Your task to perform on an android device: Find coffee shops on Maps Image 0: 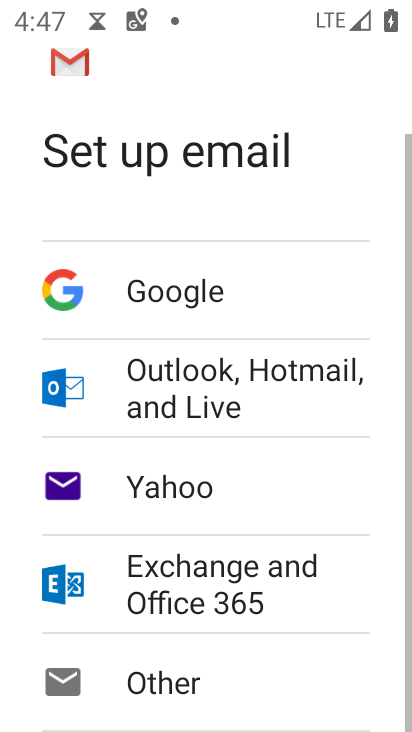
Step 0: press home button
Your task to perform on an android device: Find coffee shops on Maps Image 1: 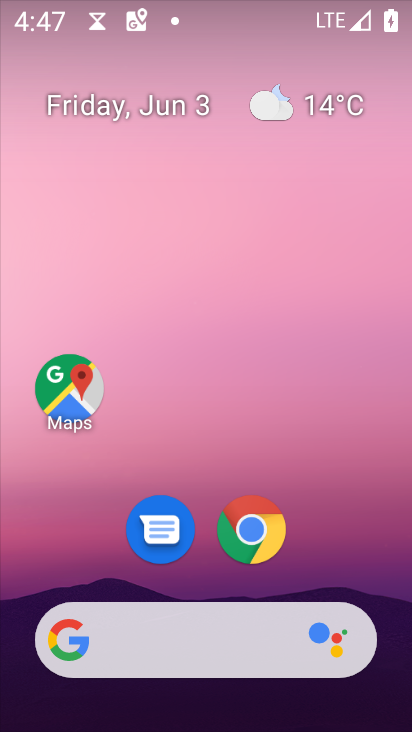
Step 1: drag from (345, 541) to (300, 17)
Your task to perform on an android device: Find coffee shops on Maps Image 2: 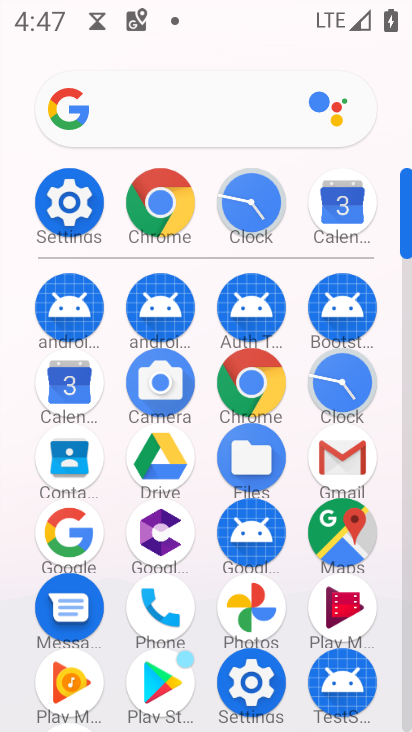
Step 2: click (346, 548)
Your task to perform on an android device: Find coffee shops on Maps Image 3: 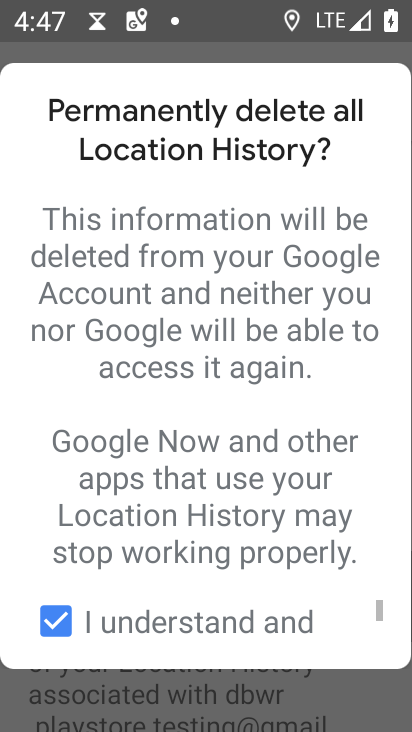
Step 3: press back button
Your task to perform on an android device: Find coffee shops on Maps Image 4: 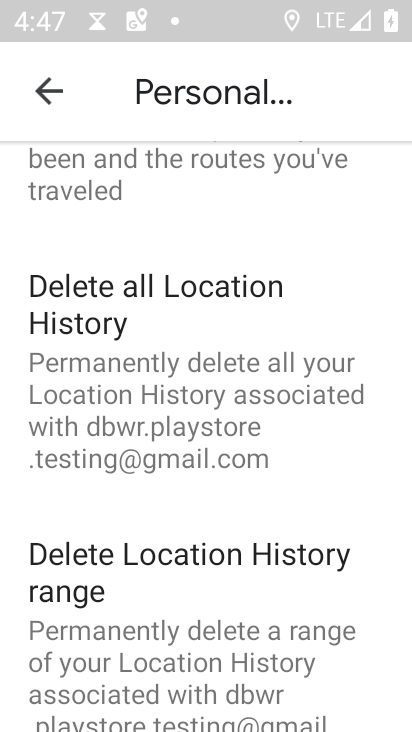
Step 4: press back button
Your task to perform on an android device: Find coffee shops on Maps Image 5: 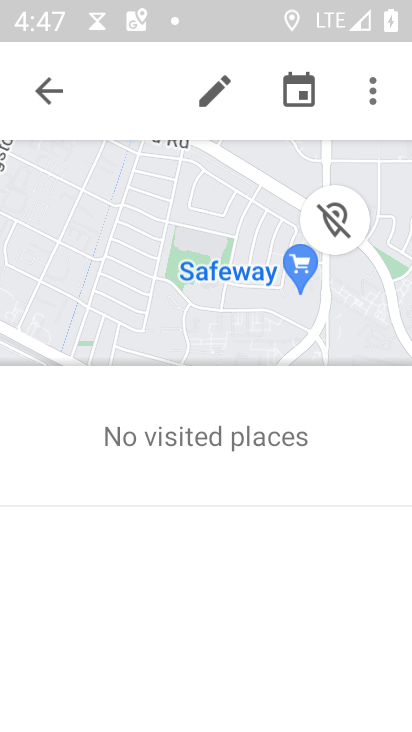
Step 5: press back button
Your task to perform on an android device: Find coffee shops on Maps Image 6: 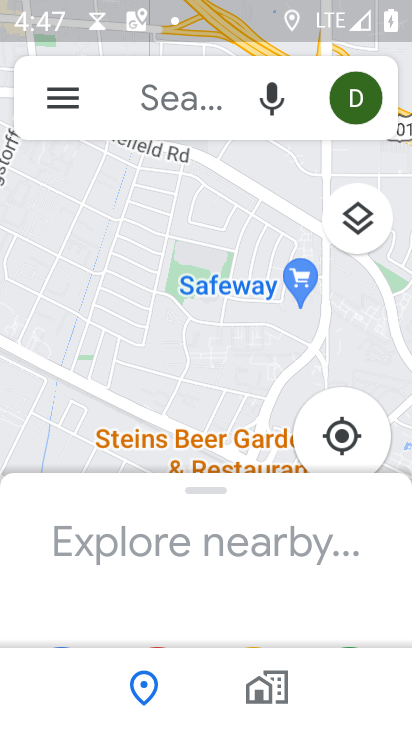
Step 6: press back button
Your task to perform on an android device: Find coffee shops on Maps Image 7: 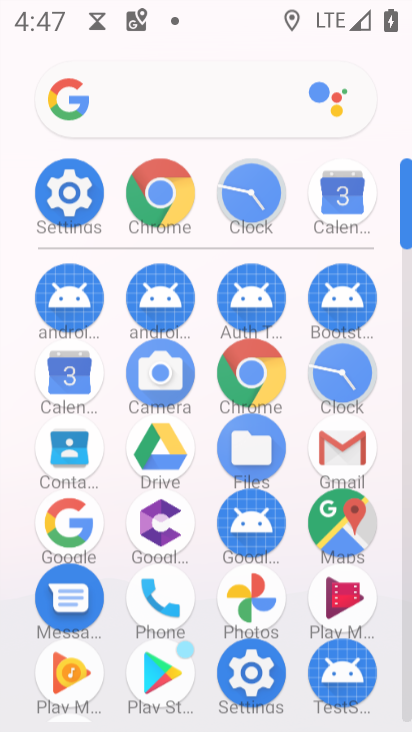
Step 7: click (156, 97)
Your task to perform on an android device: Find coffee shops on Maps Image 8: 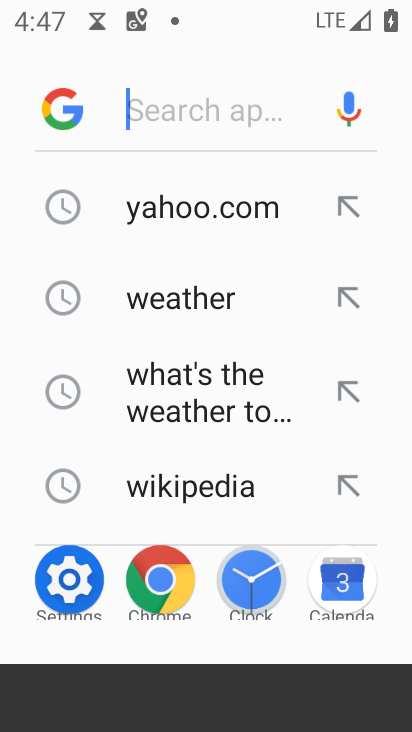
Step 8: click (353, 537)
Your task to perform on an android device: Find coffee shops on Maps Image 9: 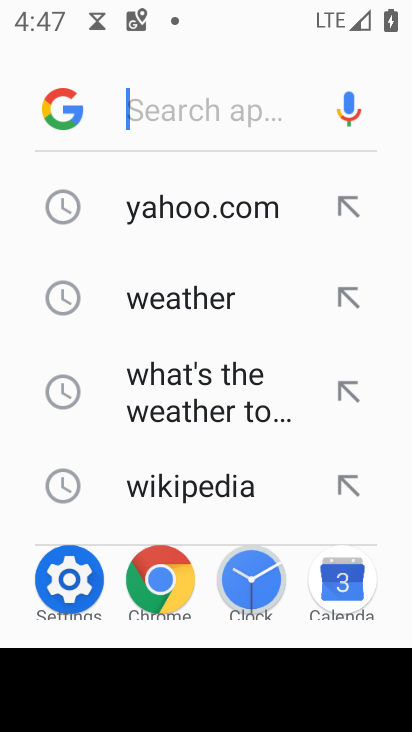
Step 9: press home button
Your task to perform on an android device: Find coffee shops on Maps Image 10: 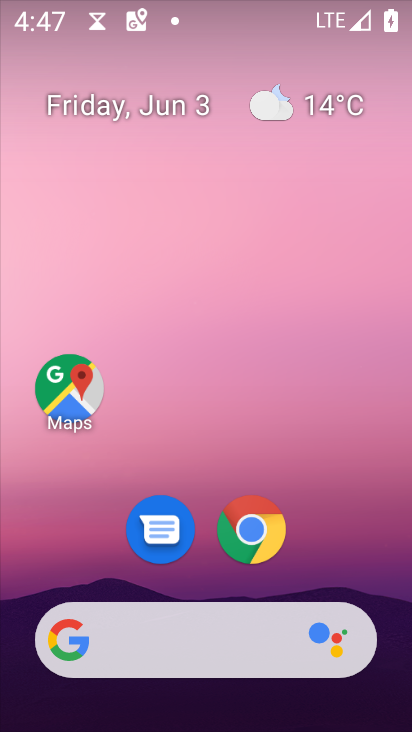
Step 10: drag from (339, 564) to (285, 51)
Your task to perform on an android device: Find coffee shops on Maps Image 11: 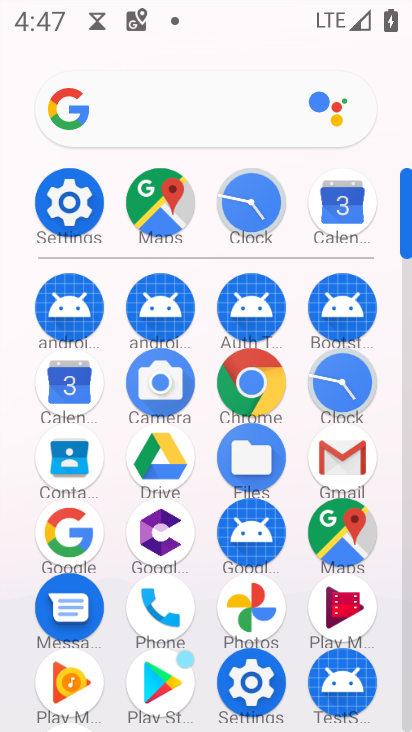
Step 11: click (347, 520)
Your task to perform on an android device: Find coffee shops on Maps Image 12: 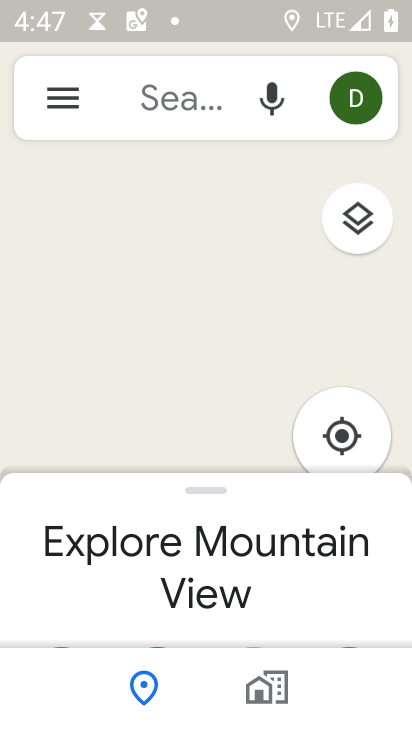
Step 12: click (159, 75)
Your task to perform on an android device: Find coffee shops on Maps Image 13: 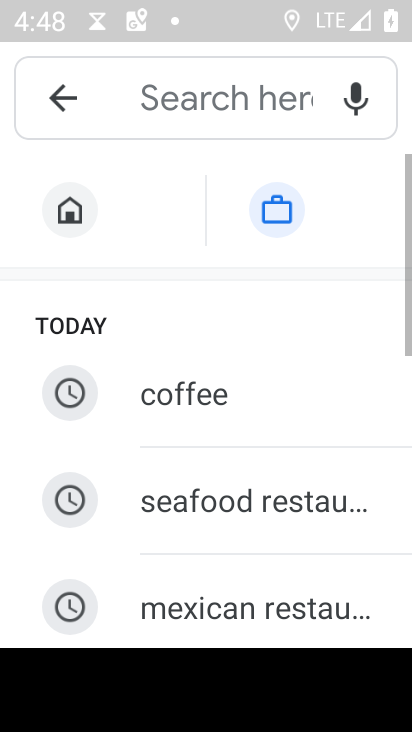
Step 13: click (192, 408)
Your task to perform on an android device: Find coffee shops on Maps Image 14: 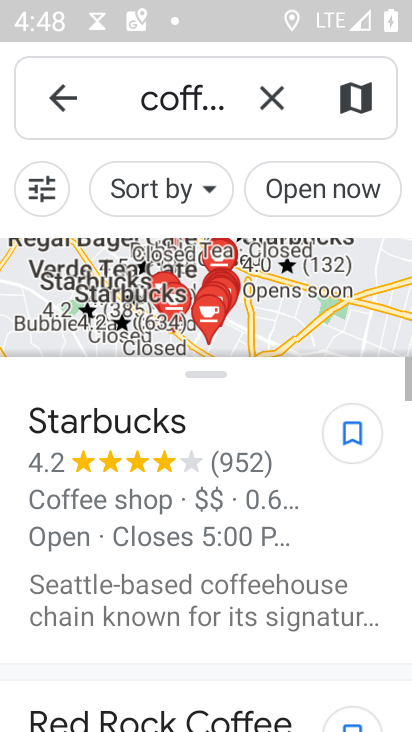
Step 14: task complete